Your task to perform on an android device: allow cookies in the chrome app Image 0: 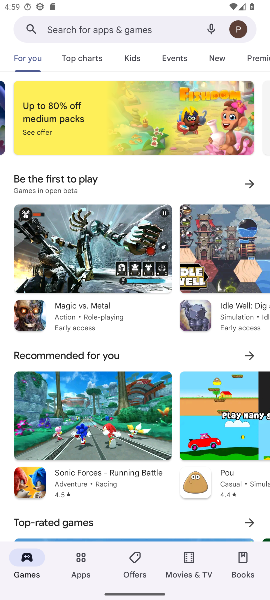
Step 0: press home button
Your task to perform on an android device: allow cookies in the chrome app Image 1: 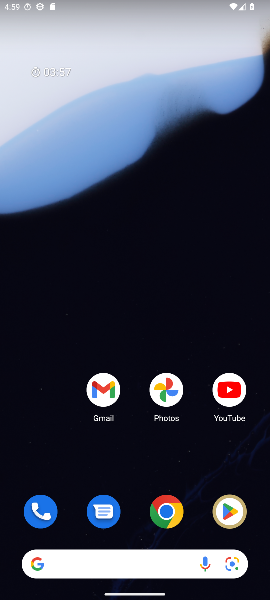
Step 1: click (169, 505)
Your task to perform on an android device: allow cookies in the chrome app Image 2: 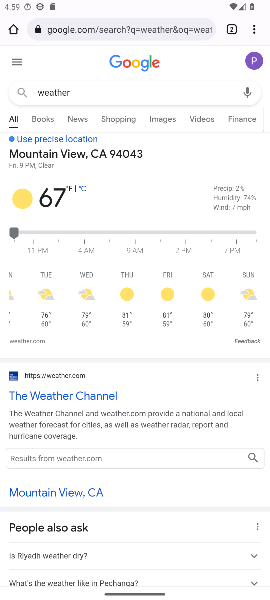
Step 2: click (257, 27)
Your task to perform on an android device: allow cookies in the chrome app Image 3: 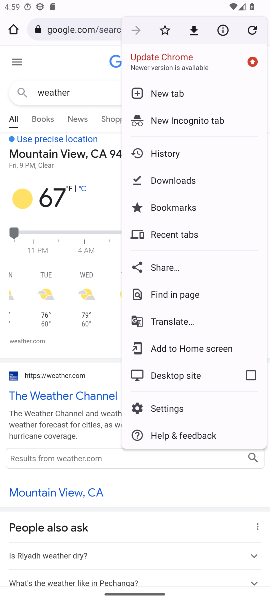
Step 3: click (187, 408)
Your task to perform on an android device: allow cookies in the chrome app Image 4: 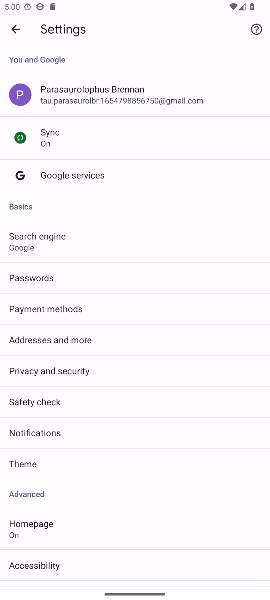
Step 4: drag from (53, 523) to (68, 368)
Your task to perform on an android device: allow cookies in the chrome app Image 5: 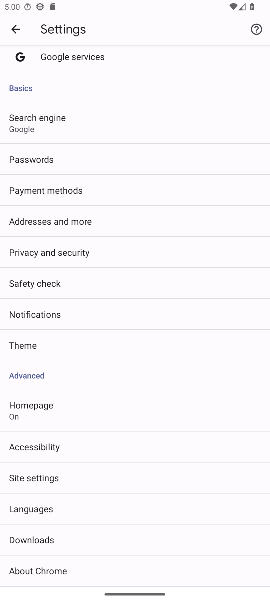
Step 5: click (51, 474)
Your task to perform on an android device: allow cookies in the chrome app Image 6: 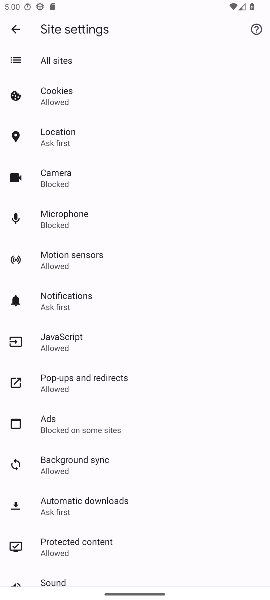
Step 6: click (67, 96)
Your task to perform on an android device: allow cookies in the chrome app Image 7: 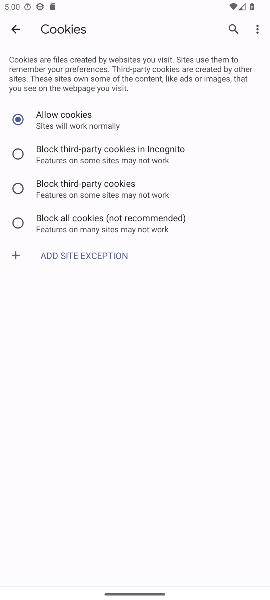
Step 7: task complete